Your task to perform on an android device: turn notification dots on Image 0: 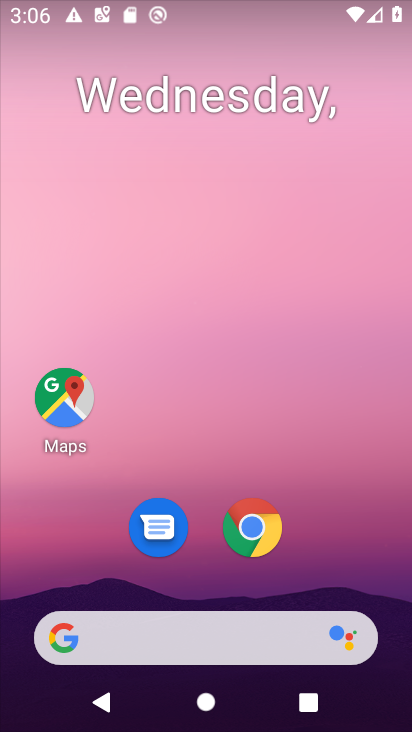
Step 0: drag from (338, 534) to (343, 103)
Your task to perform on an android device: turn notification dots on Image 1: 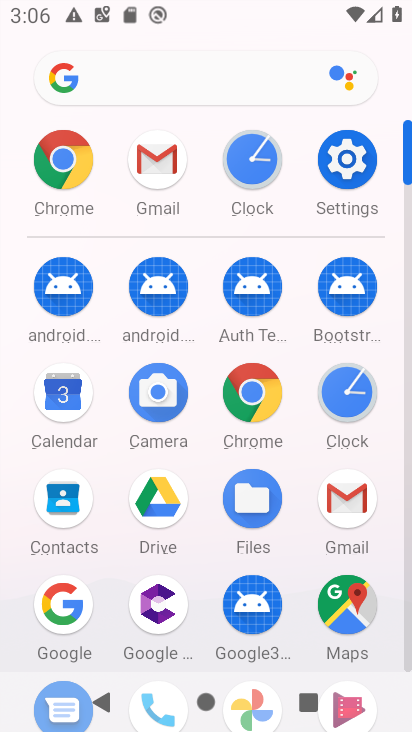
Step 1: click (356, 160)
Your task to perform on an android device: turn notification dots on Image 2: 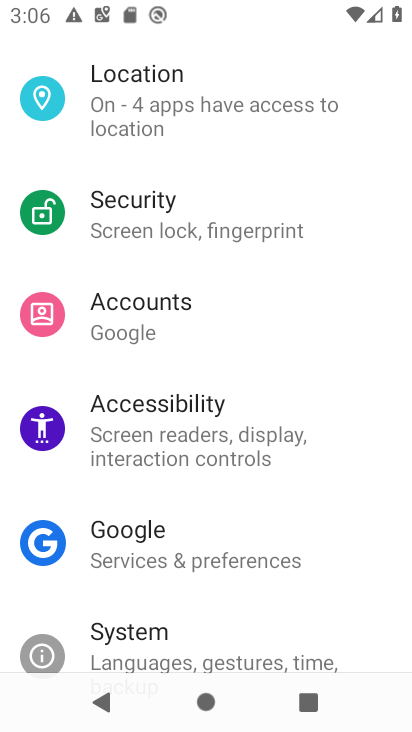
Step 2: drag from (283, 147) to (268, 571)
Your task to perform on an android device: turn notification dots on Image 3: 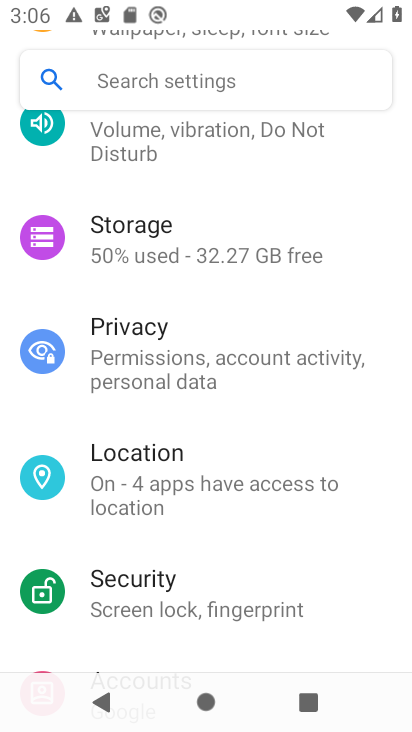
Step 3: drag from (256, 194) to (232, 523)
Your task to perform on an android device: turn notification dots on Image 4: 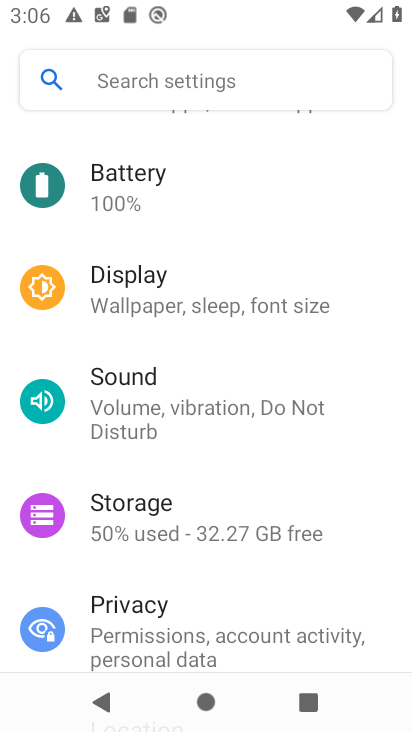
Step 4: drag from (256, 171) to (253, 565)
Your task to perform on an android device: turn notification dots on Image 5: 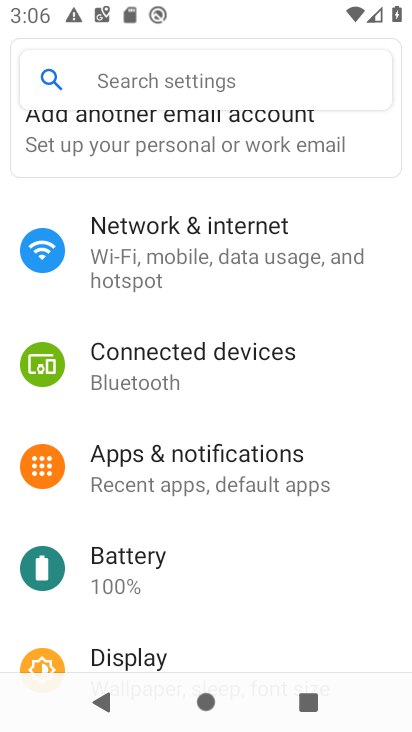
Step 5: click (222, 482)
Your task to perform on an android device: turn notification dots on Image 6: 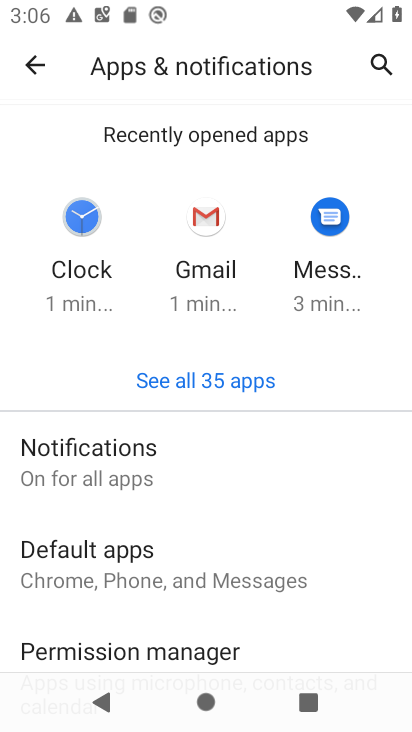
Step 6: click (103, 473)
Your task to perform on an android device: turn notification dots on Image 7: 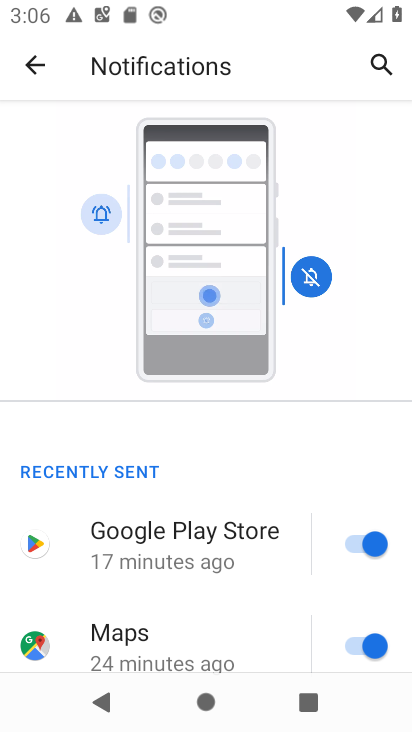
Step 7: drag from (234, 609) to (292, 259)
Your task to perform on an android device: turn notification dots on Image 8: 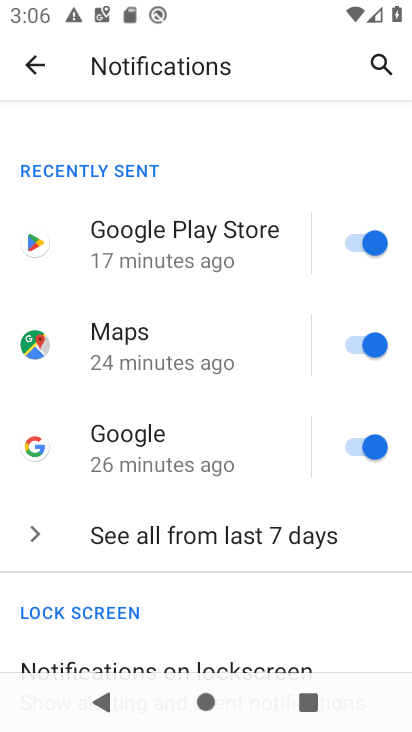
Step 8: drag from (265, 592) to (287, 237)
Your task to perform on an android device: turn notification dots on Image 9: 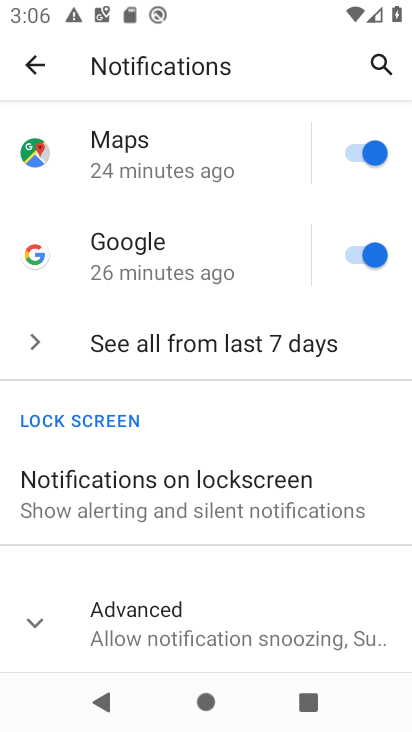
Step 9: click (140, 609)
Your task to perform on an android device: turn notification dots on Image 10: 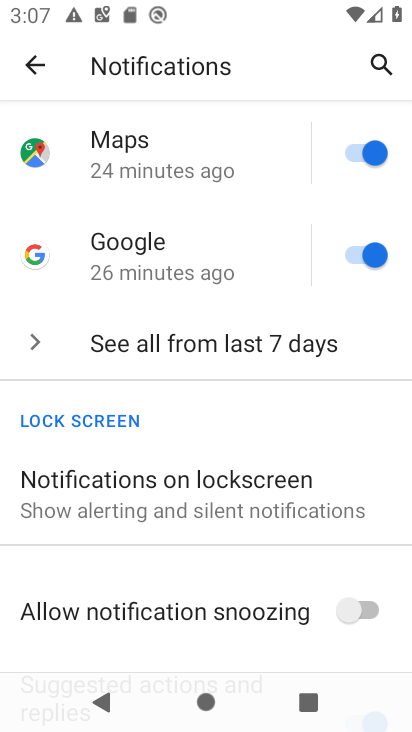
Step 10: task complete